Your task to perform on an android device: set the timer Image 0: 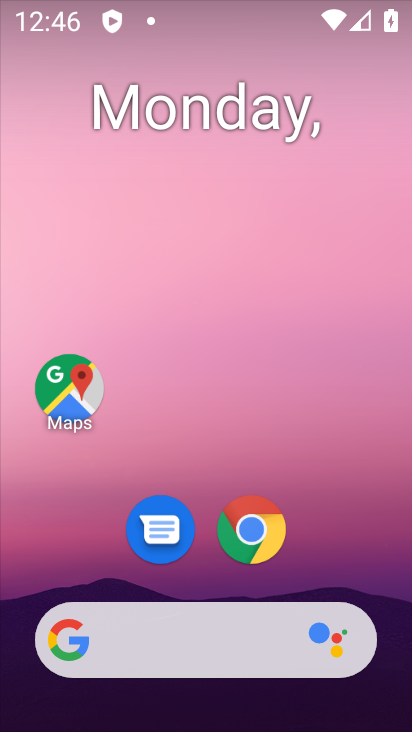
Step 0: drag from (339, 492) to (338, 123)
Your task to perform on an android device: set the timer Image 1: 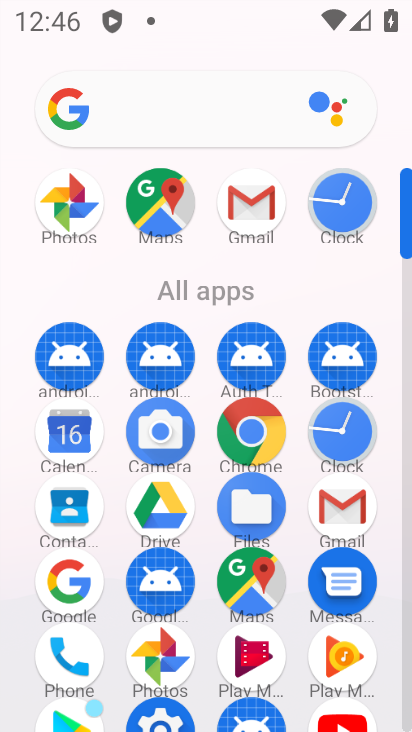
Step 1: drag from (287, 85) to (287, 29)
Your task to perform on an android device: set the timer Image 2: 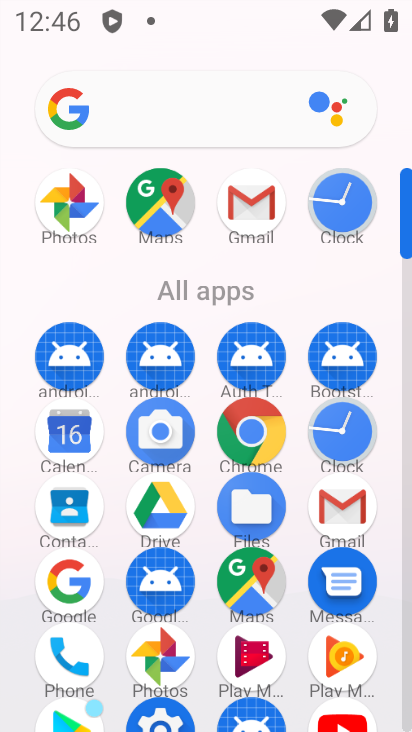
Step 2: click (356, 425)
Your task to perform on an android device: set the timer Image 3: 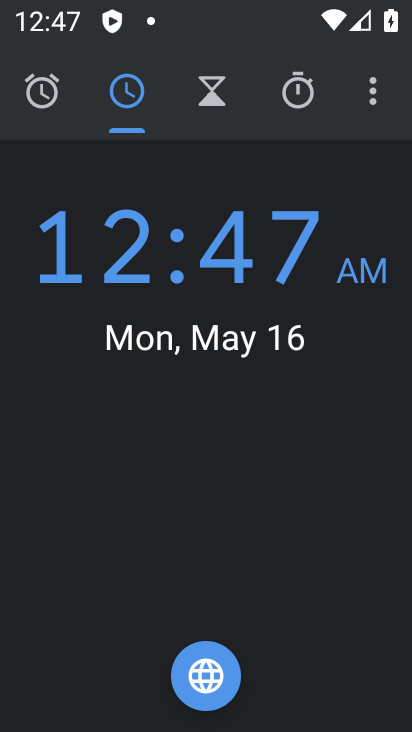
Step 3: click (213, 101)
Your task to perform on an android device: set the timer Image 4: 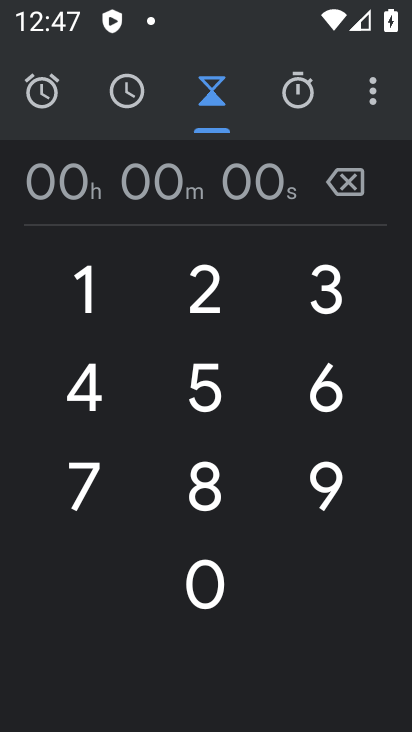
Step 4: click (222, 382)
Your task to perform on an android device: set the timer Image 5: 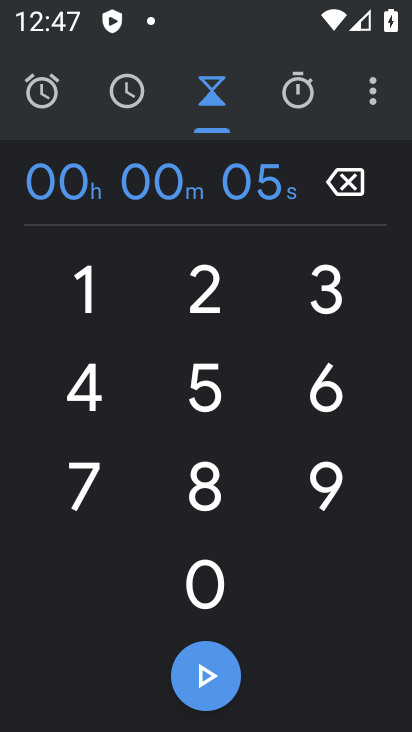
Step 5: click (202, 475)
Your task to perform on an android device: set the timer Image 6: 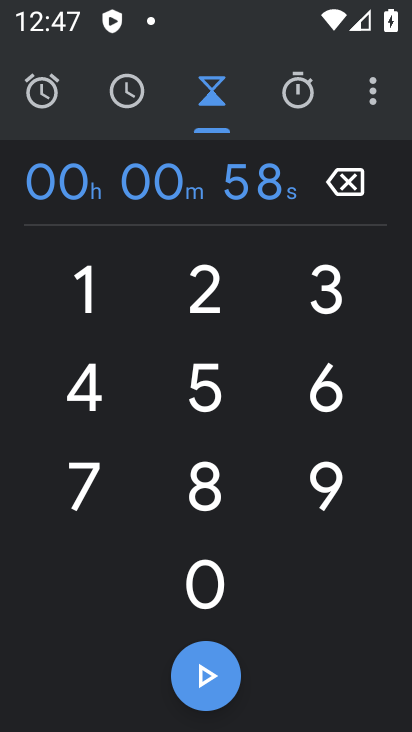
Step 6: click (215, 388)
Your task to perform on an android device: set the timer Image 7: 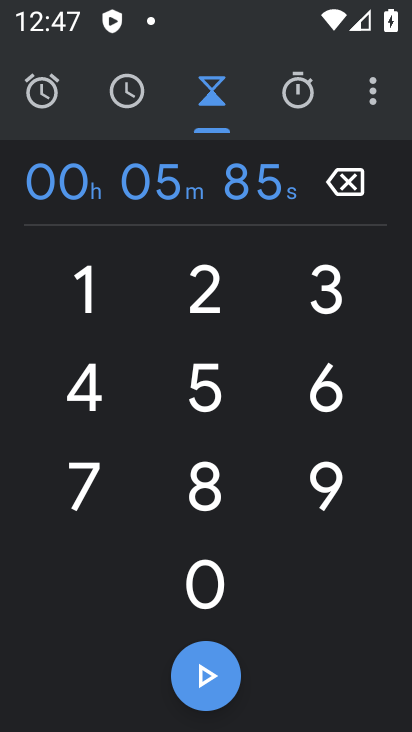
Step 7: click (233, 682)
Your task to perform on an android device: set the timer Image 8: 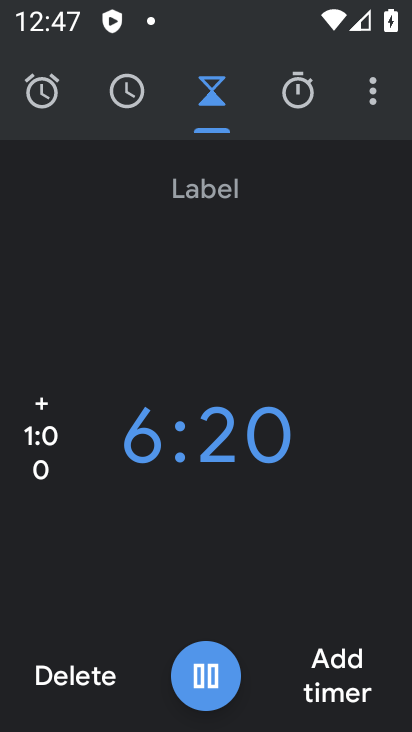
Step 8: task complete